Your task to perform on an android device: turn vacation reply on in the gmail app Image 0: 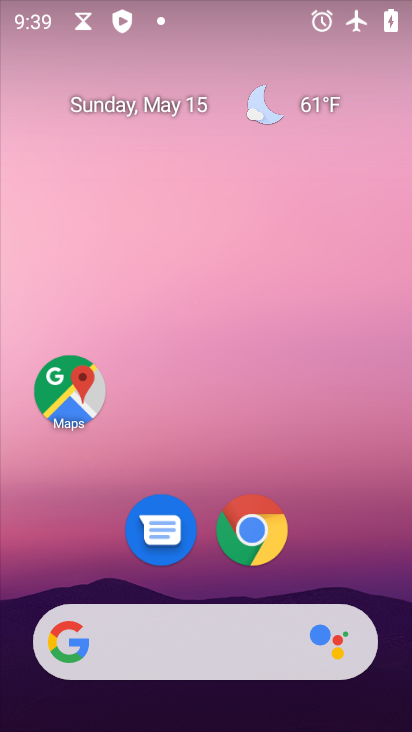
Step 0: drag from (217, 719) to (220, 158)
Your task to perform on an android device: turn vacation reply on in the gmail app Image 1: 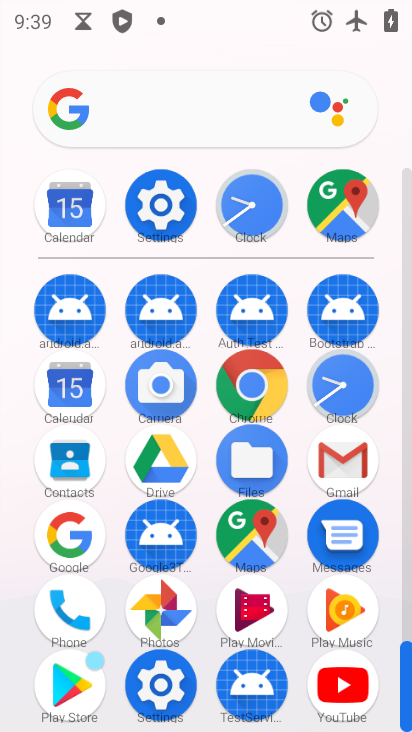
Step 1: click (346, 458)
Your task to perform on an android device: turn vacation reply on in the gmail app Image 2: 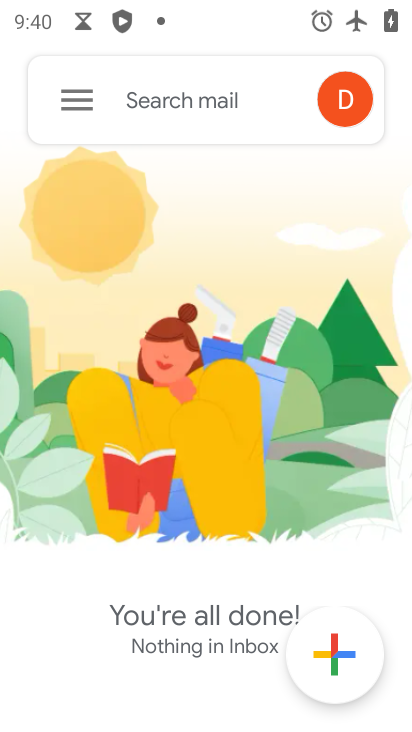
Step 2: click (69, 100)
Your task to perform on an android device: turn vacation reply on in the gmail app Image 3: 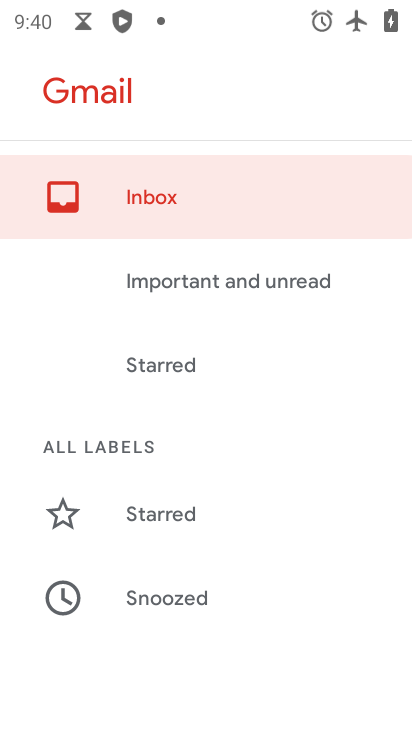
Step 3: drag from (112, 642) to (128, 119)
Your task to perform on an android device: turn vacation reply on in the gmail app Image 4: 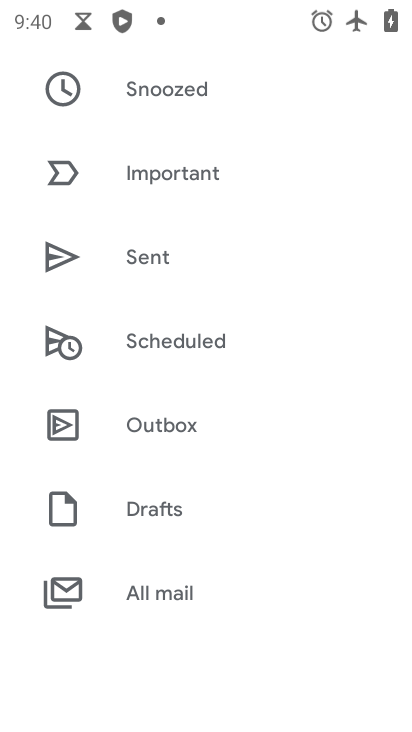
Step 4: drag from (135, 625) to (139, 68)
Your task to perform on an android device: turn vacation reply on in the gmail app Image 5: 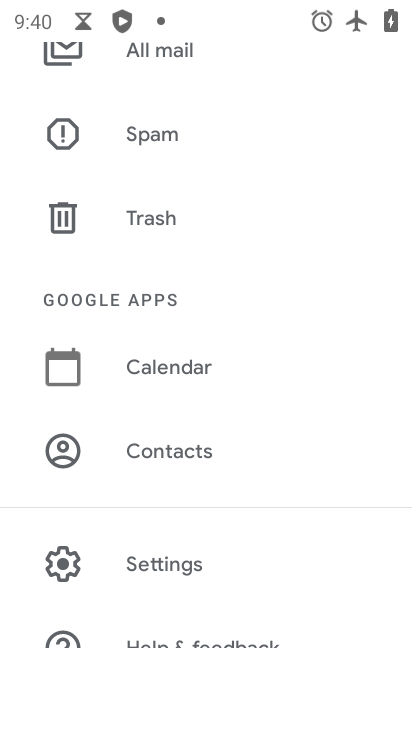
Step 5: click (149, 565)
Your task to perform on an android device: turn vacation reply on in the gmail app Image 6: 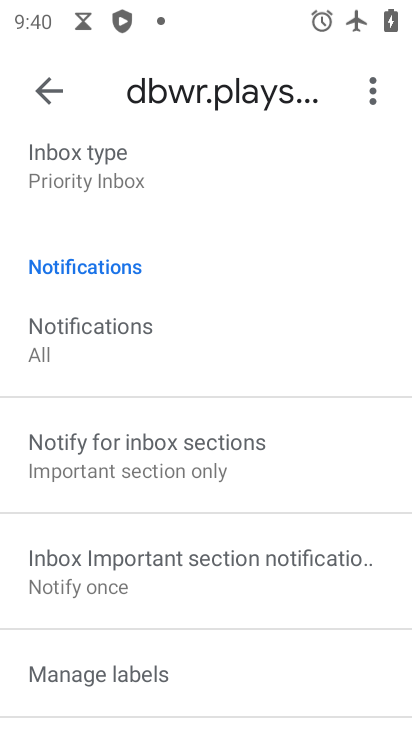
Step 6: drag from (178, 661) to (190, 150)
Your task to perform on an android device: turn vacation reply on in the gmail app Image 7: 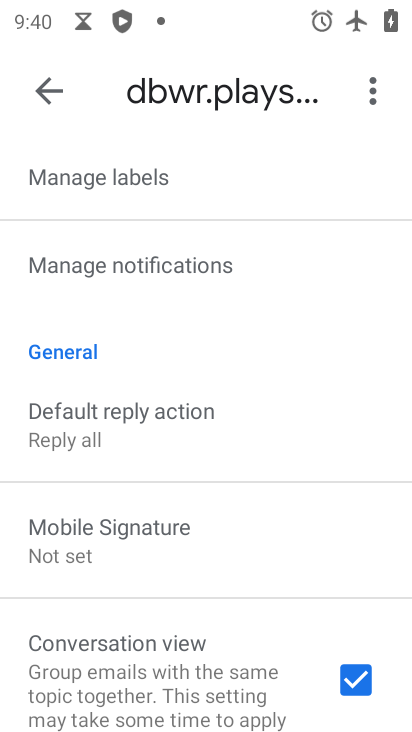
Step 7: drag from (157, 651) to (172, 151)
Your task to perform on an android device: turn vacation reply on in the gmail app Image 8: 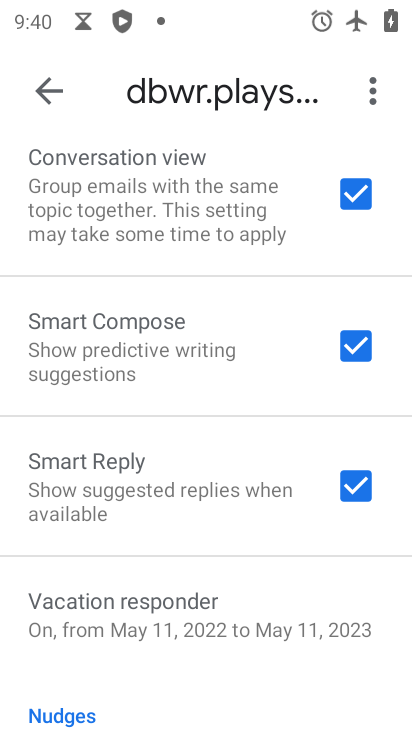
Step 8: click (143, 611)
Your task to perform on an android device: turn vacation reply on in the gmail app Image 9: 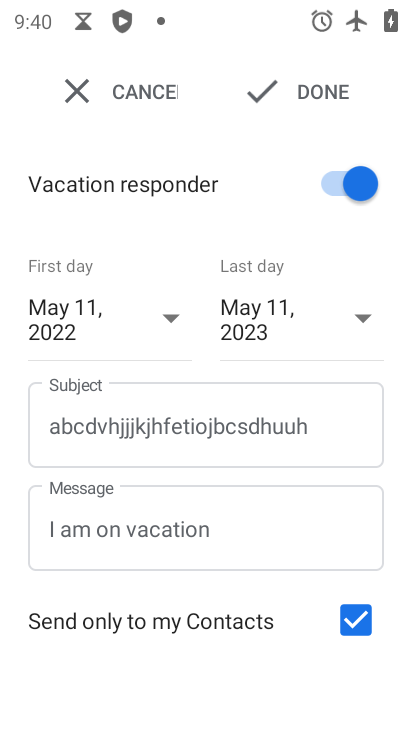
Step 9: task complete